Your task to perform on an android device: clear history in the chrome app Image 0: 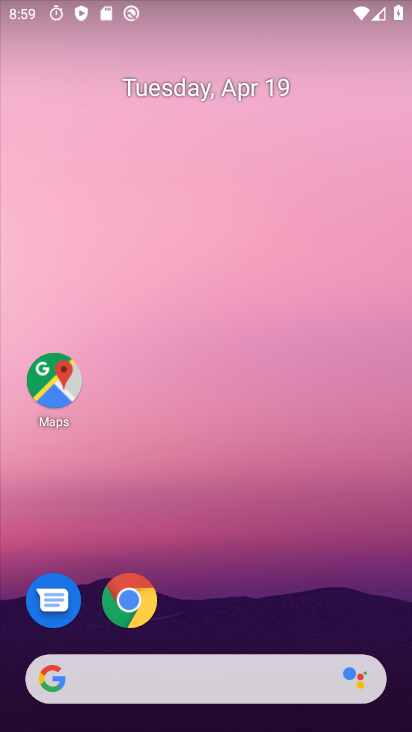
Step 0: click (136, 611)
Your task to perform on an android device: clear history in the chrome app Image 1: 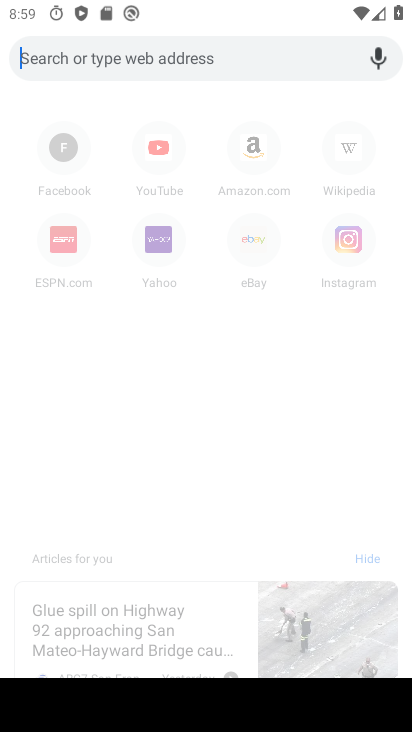
Step 1: press back button
Your task to perform on an android device: clear history in the chrome app Image 2: 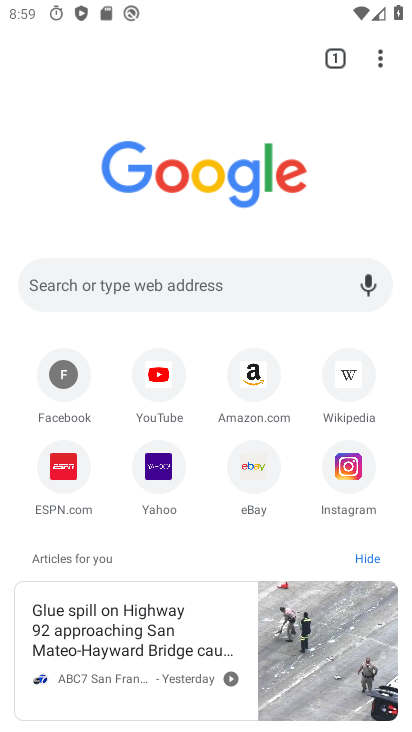
Step 2: click (378, 58)
Your task to perform on an android device: clear history in the chrome app Image 3: 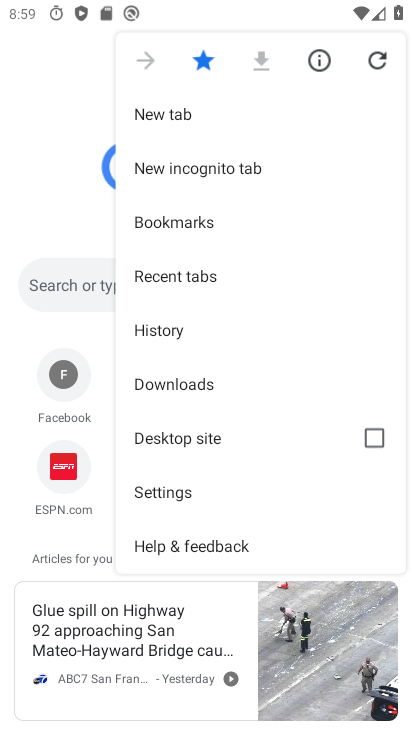
Step 3: click (184, 328)
Your task to perform on an android device: clear history in the chrome app Image 4: 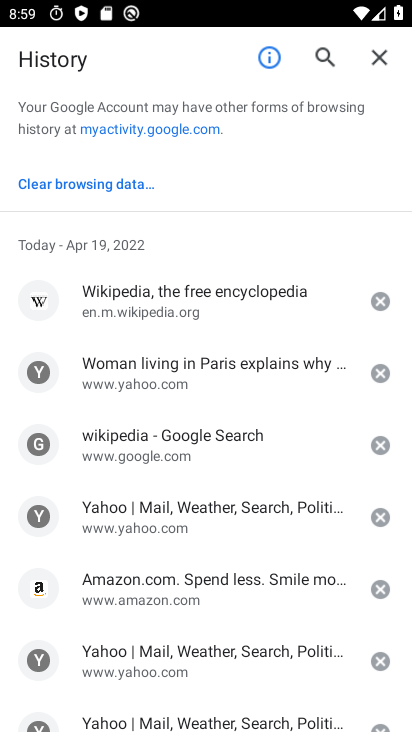
Step 4: task complete